Your task to perform on an android device: allow cookies in the chrome app Image 0: 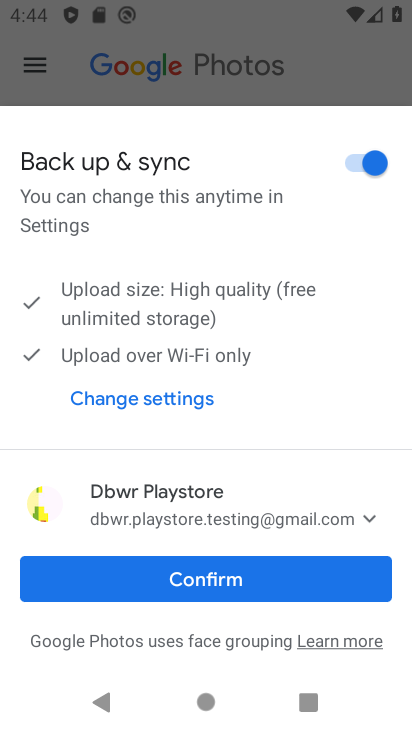
Step 0: press home button
Your task to perform on an android device: allow cookies in the chrome app Image 1: 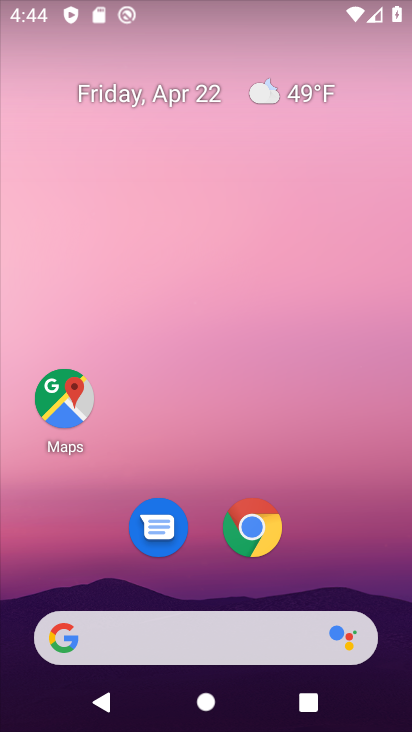
Step 1: drag from (254, 696) to (240, 123)
Your task to perform on an android device: allow cookies in the chrome app Image 2: 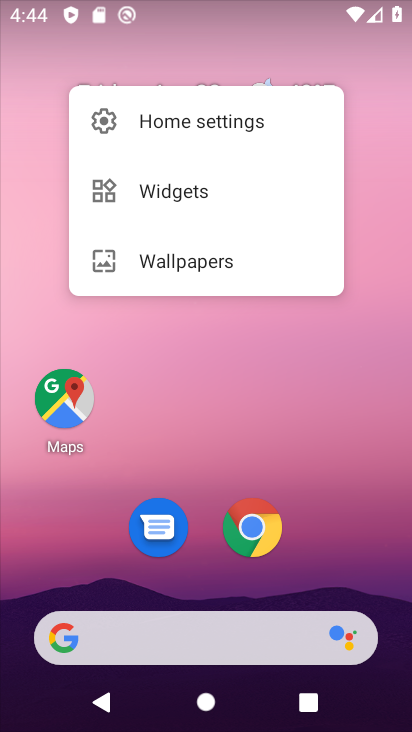
Step 2: drag from (313, 399) to (265, 178)
Your task to perform on an android device: allow cookies in the chrome app Image 3: 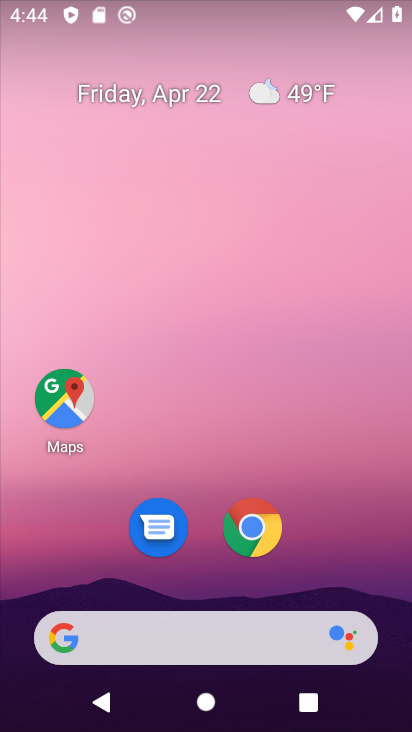
Step 3: click (39, 211)
Your task to perform on an android device: allow cookies in the chrome app Image 4: 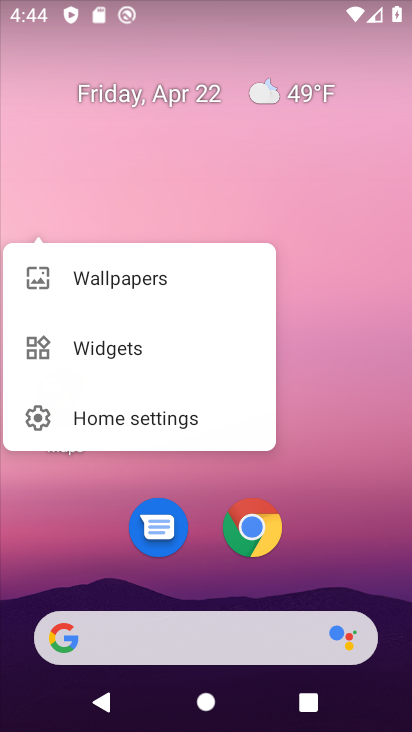
Step 4: drag from (280, 508) to (162, 114)
Your task to perform on an android device: allow cookies in the chrome app Image 5: 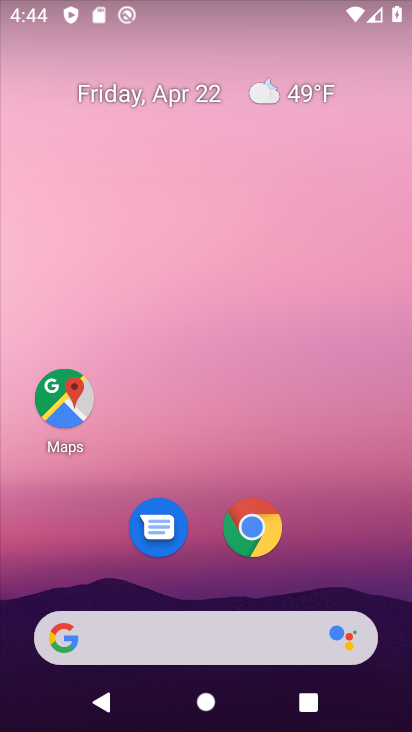
Step 5: drag from (296, 463) to (172, 117)
Your task to perform on an android device: allow cookies in the chrome app Image 6: 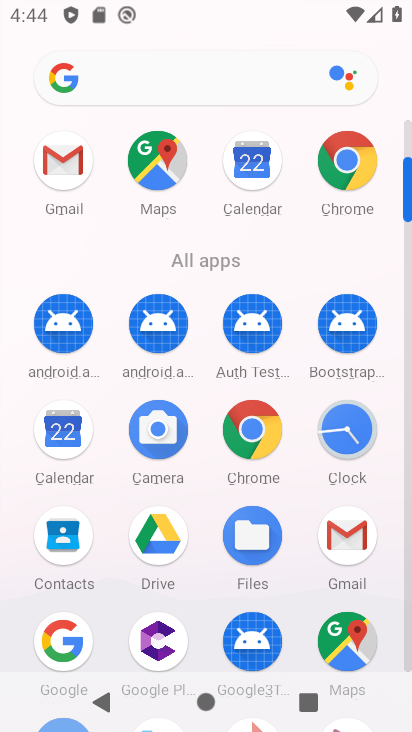
Step 6: click (341, 161)
Your task to perform on an android device: allow cookies in the chrome app Image 7: 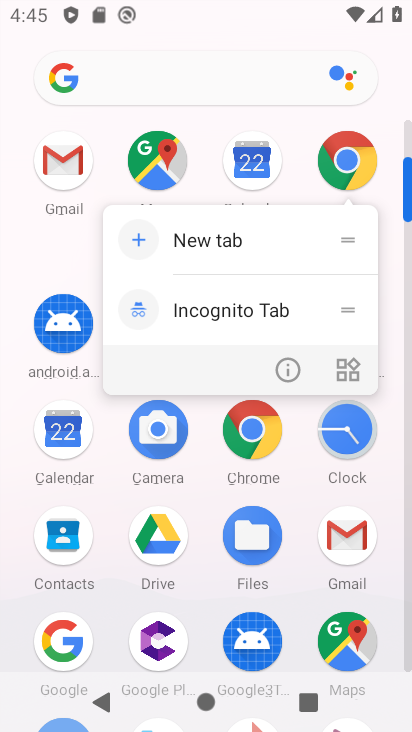
Step 7: click (201, 236)
Your task to perform on an android device: allow cookies in the chrome app Image 8: 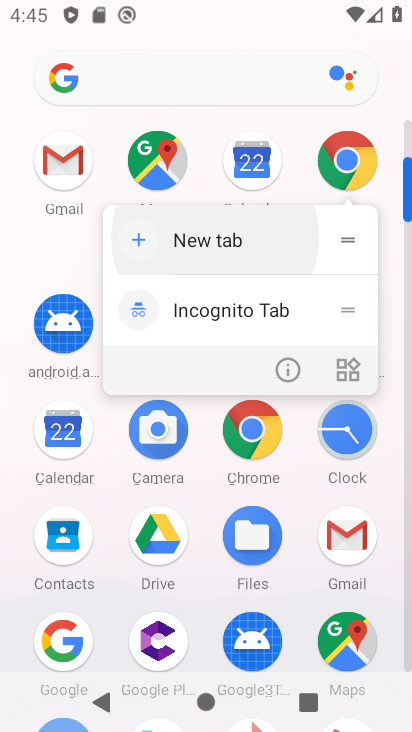
Step 8: click (199, 237)
Your task to perform on an android device: allow cookies in the chrome app Image 9: 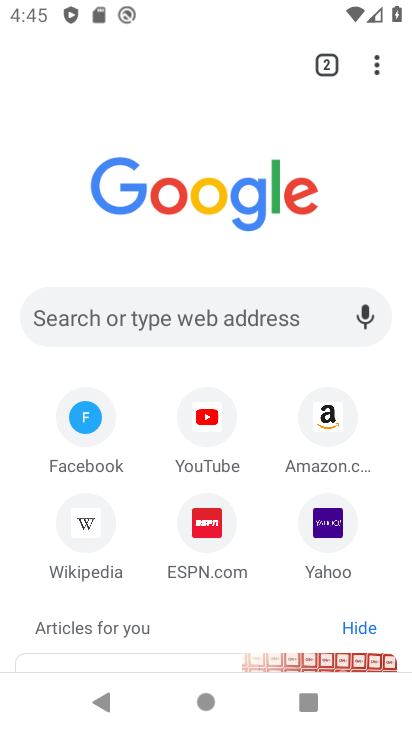
Step 9: drag from (371, 69) to (126, 551)
Your task to perform on an android device: allow cookies in the chrome app Image 10: 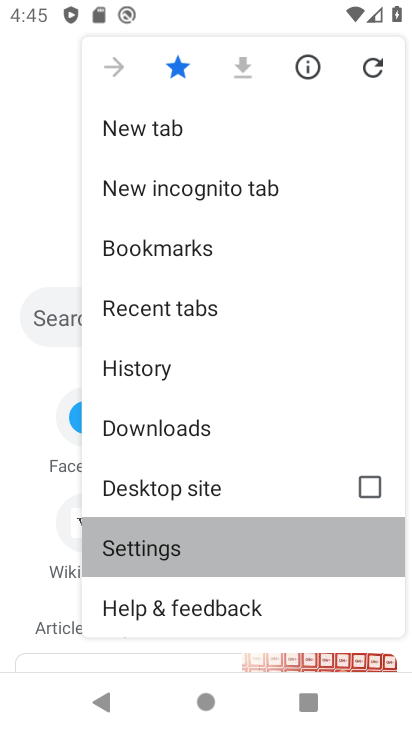
Step 10: click (128, 545)
Your task to perform on an android device: allow cookies in the chrome app Image 11: 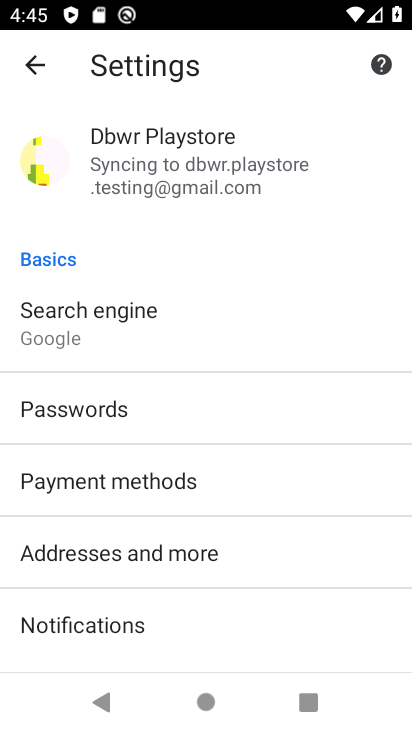
Step 11: drag from (128, 531) to (131, 270)
Your task to perform on an android device: allow cookies in the chrome app Image 12: 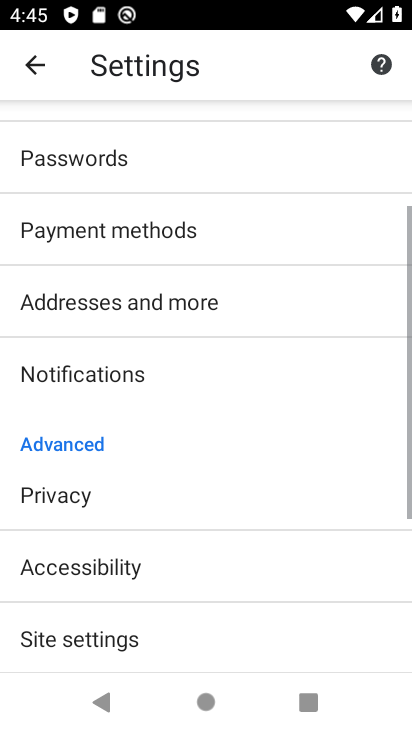
Step 12: click (216, 298)
Your task to perform on an android device: allow cookies in the chrome app Image 13: 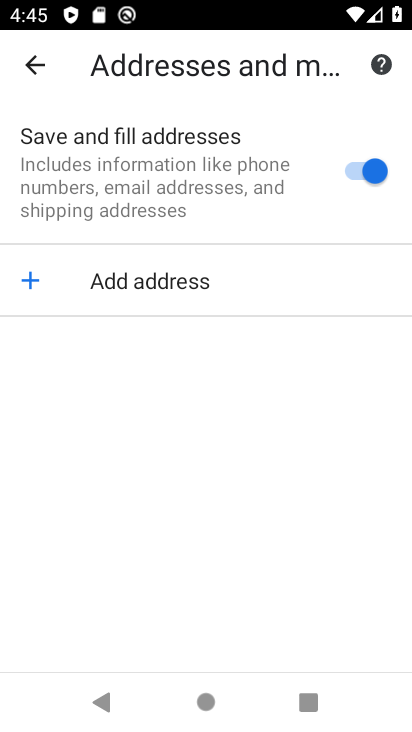
Step 13: click (28, 67)
Your task to perform on an android device: allow cookies in the chrome app Image 14: 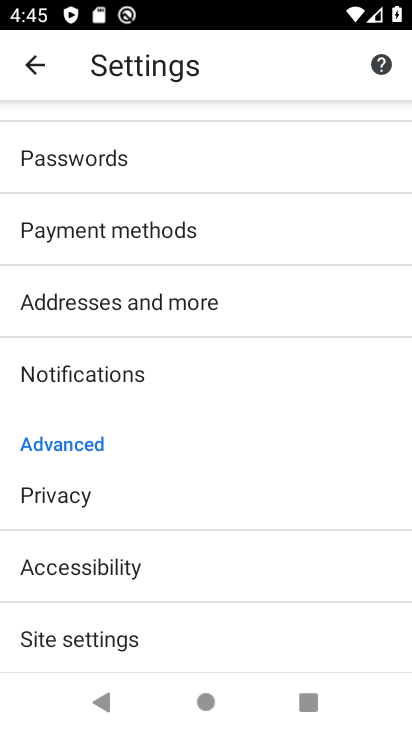
Step 14: click (74, 631)
Your task to perform on an android device: allow cookies in the chrome app Image 15: 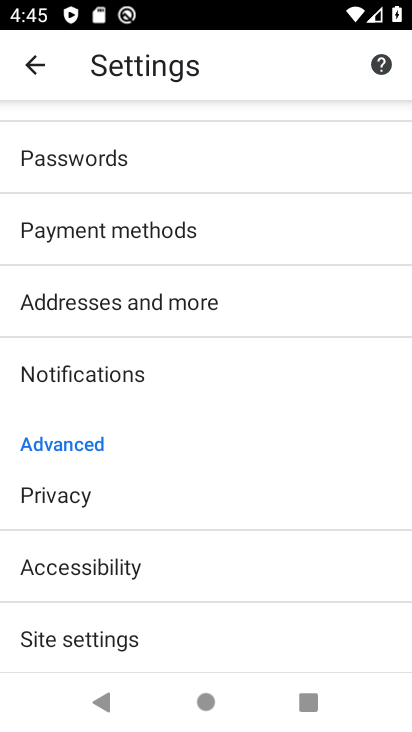
Step 15: click (74, 631)
Your task to perform on an android device: allow cookies in the chrome app Image 16: 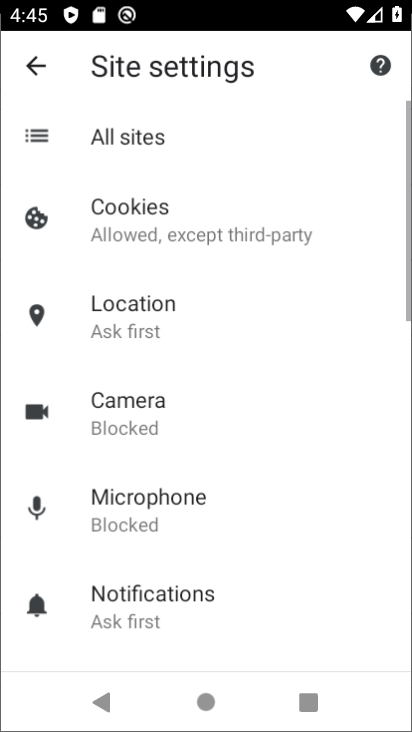
Step 16: click (74, 635)
Your task to perform on an android device: allow cookies in the chrome app Image 17: 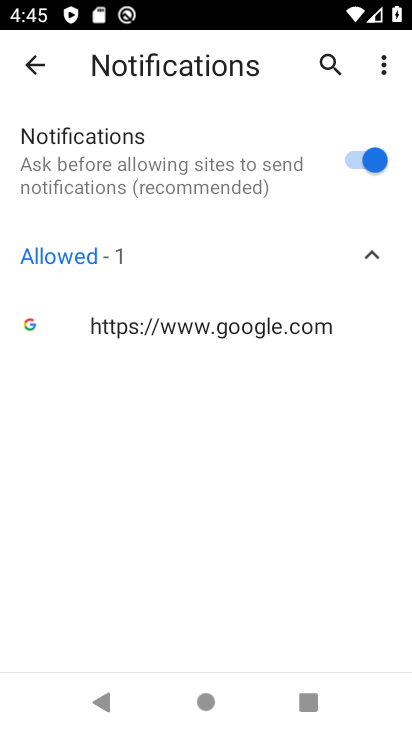
Step 17: click (35, 59)
Your task to perform on an android device: allow cookies in the chrome app Image 18: 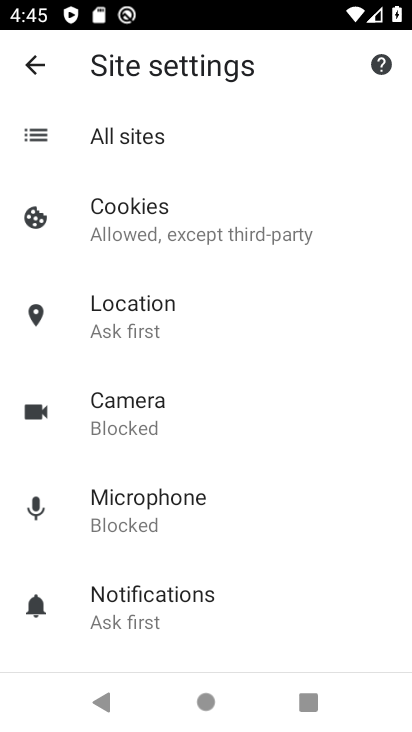
Step 18: click (118, 135)
Your task to perform on an android device: allow cookies in the chrome app Image 19: 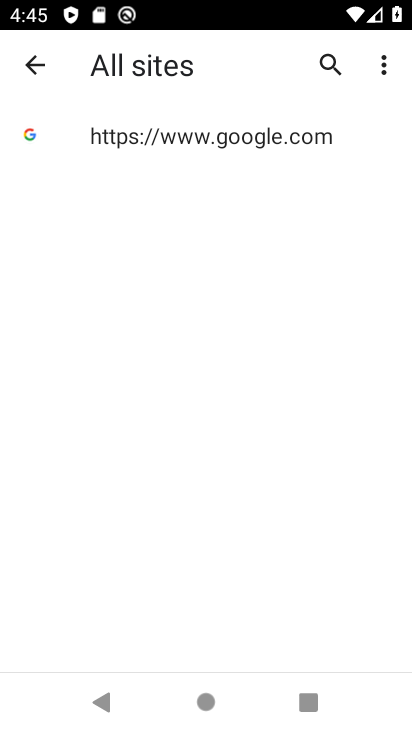
Step 19: click (22, 65)
Your task to perform on an android device: allow cookies in the chrome app Image 20: 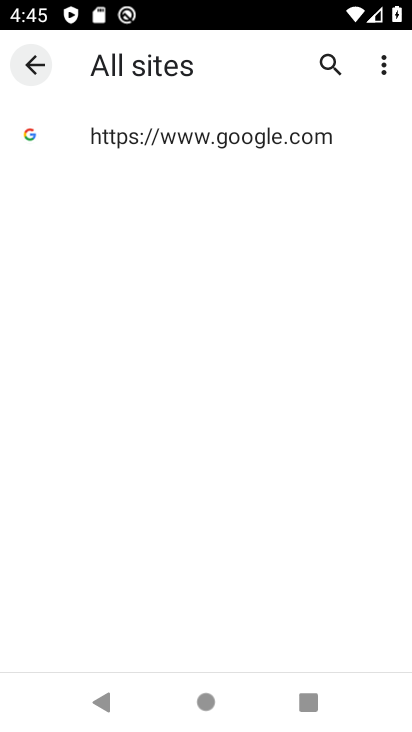
Step 20: click (26, 64)
Your task to perform on an android device: allow cookies in the chrome app Image 21: 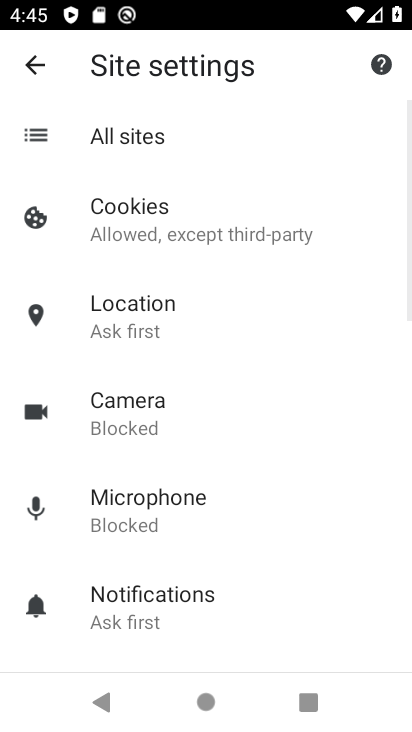
Step 21: click (119, 221)
Your task to perform on an android device: allow cookies in the chrome app Image 22: 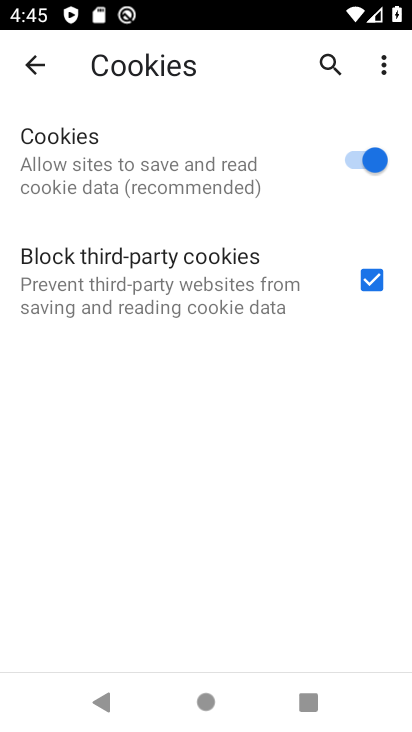
Step 22: task complete